Your task to perform on an android device: delete the emails in spam in the gmail app Image 0: 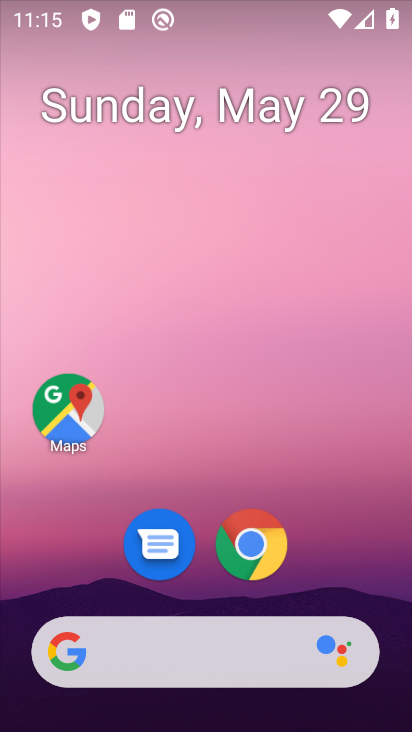
Step 0: press home button
Your task to perform on an android device: delete the emails in spam in the gmail app Image 1: 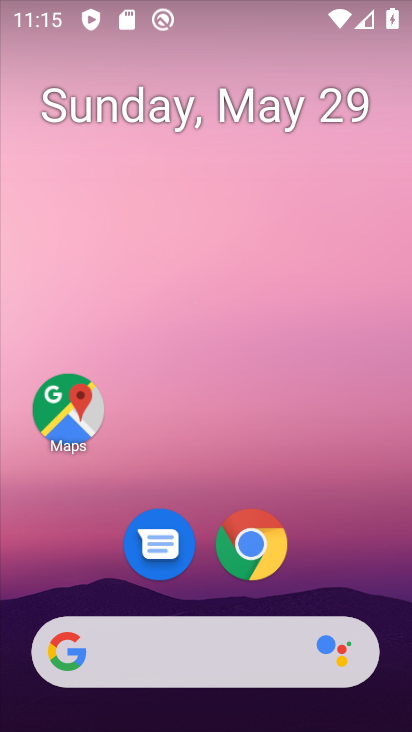
Step 1: drag from (202, 588) to (205, 29)
Your task to perform on an android device: delete the emails in spam in the gmail app Image 2: 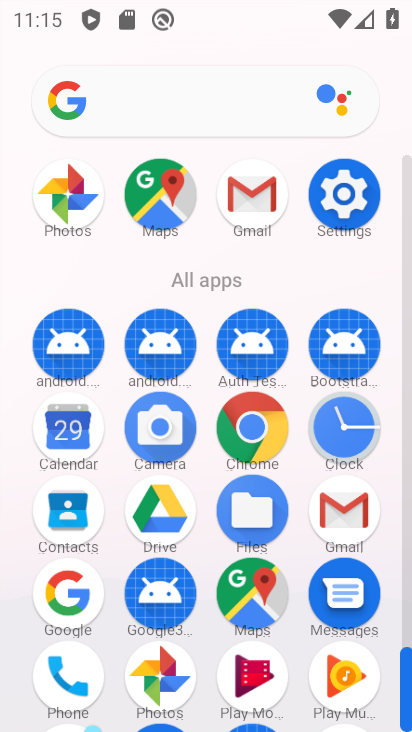
Step 2: click (341, 504)
Your task to perform on an android device: delete the emails in spam in the gmail app Image 3: 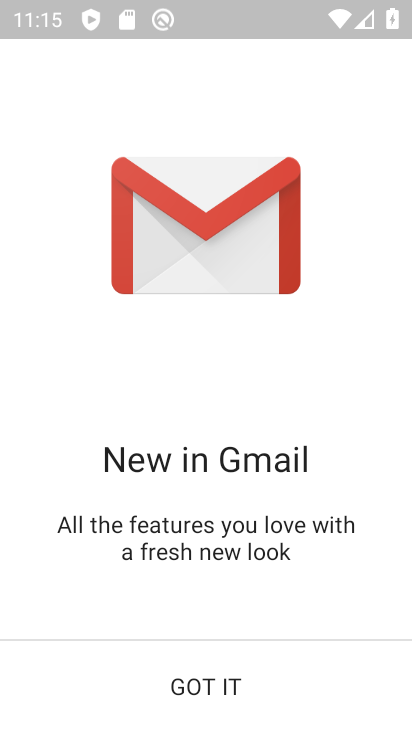
Step 3: click (210, 695)
Your task to perform on an android device: delete the emails in spam in the gmail app Image 4: 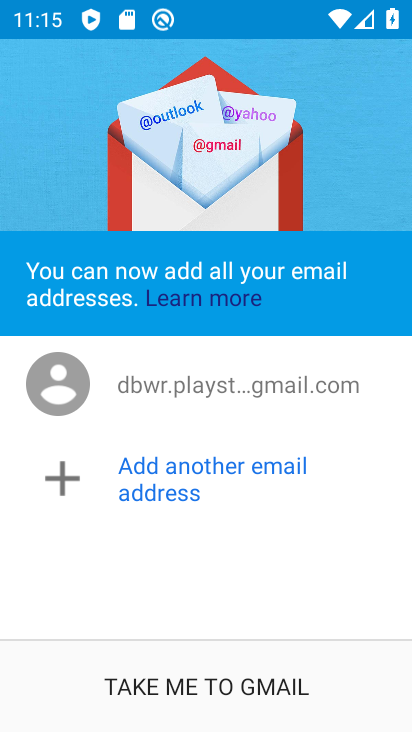
Step 4: click (194, 693)
Your task to perform on an android device: delete the emails in spam in the gmail app Image 5: 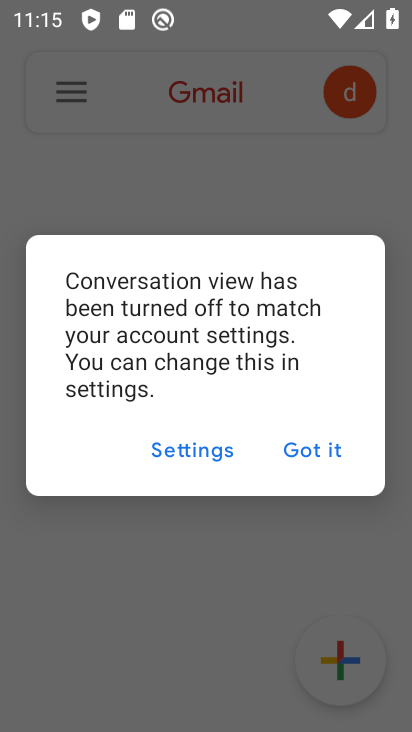
Step 5: click (309, 449)
Your task to perform on an android device: delete the emails in spam in the gmail app Image 6: 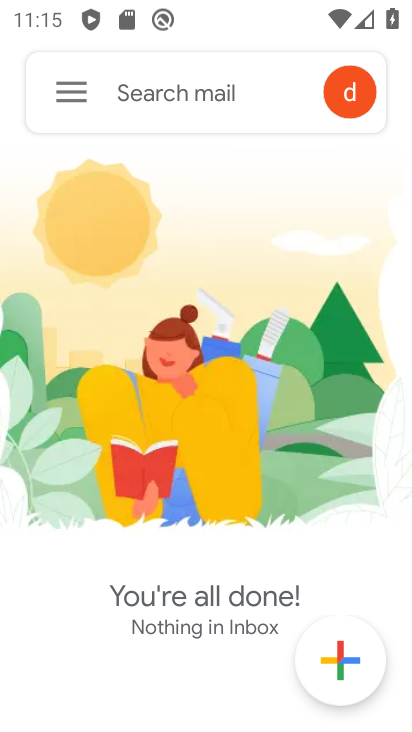
Step 6: click (65, 88)
Your task to perform on an android device: delete the emails in spam in the gmail app Image 7: 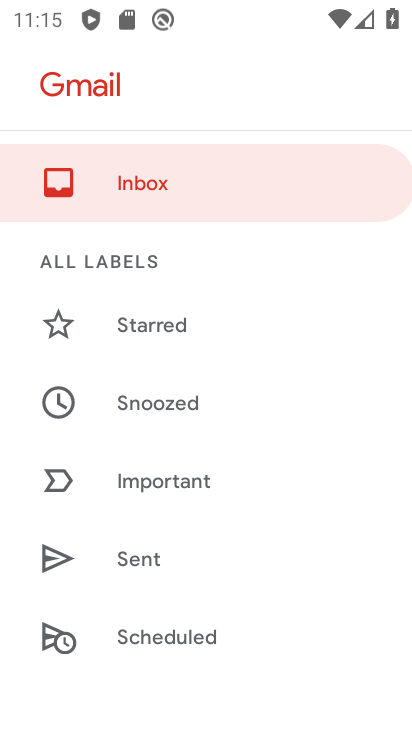
Step 7: click (208, 83)
Your task to perform on an android device: delete the emails in spam in the gmail app Image 8: 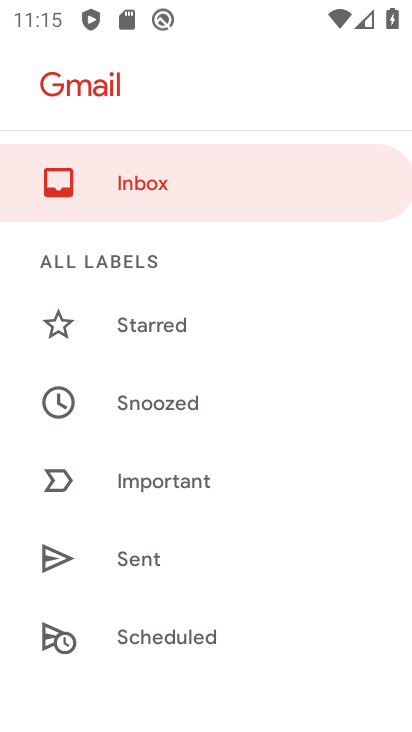
Step 8: drag from (185, 598) to (180, 80)
Your task to perform on an android device: delete the emails in spam in the gmail app Image 9: 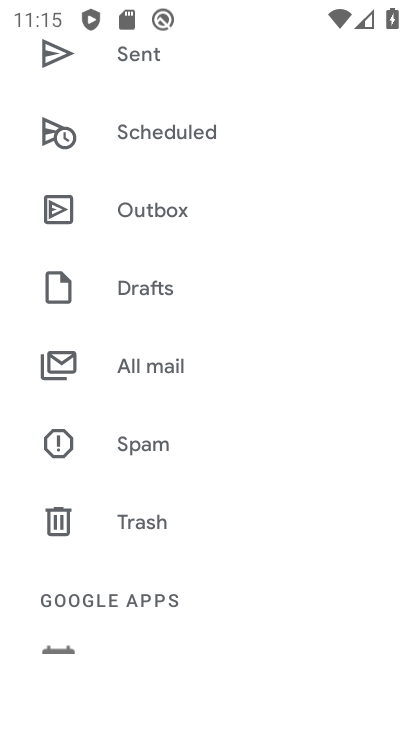
Step 9: click (99, 434)
Your task to perform on an android device: delete the emails in spam in the gmail app Image 10: 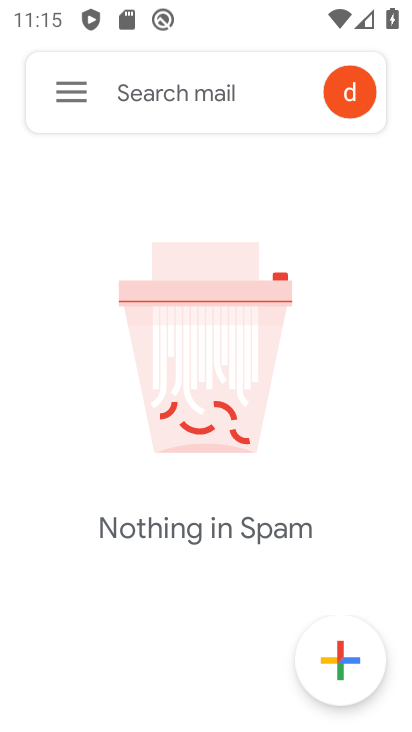
Step 10: task complete